Your task to perform on an android device: clear all cookies in the chrome app Image 0: 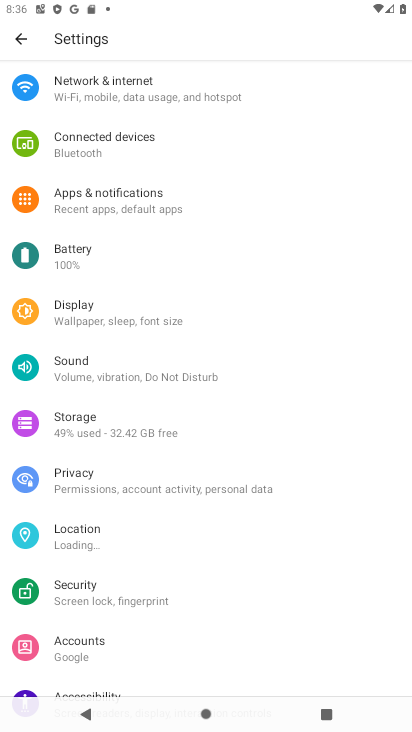
Step 0: press home button
Your task to perform on an android device: clear all cookies in the chrome app Image 1: 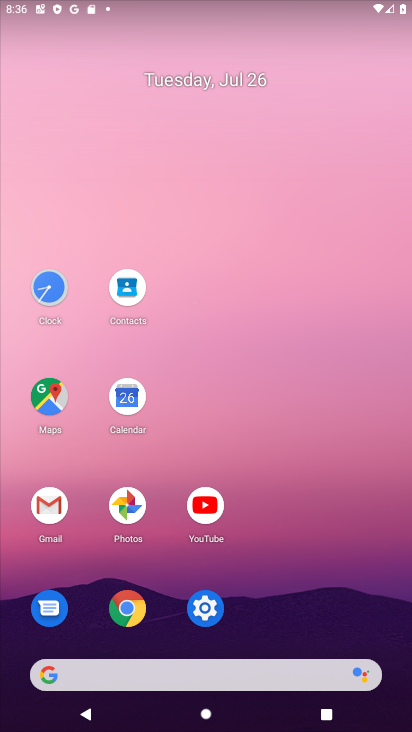
Step 1: click (130, 607)
Your task to perform on an android device: clear all cookies in the chrome app Image 2: 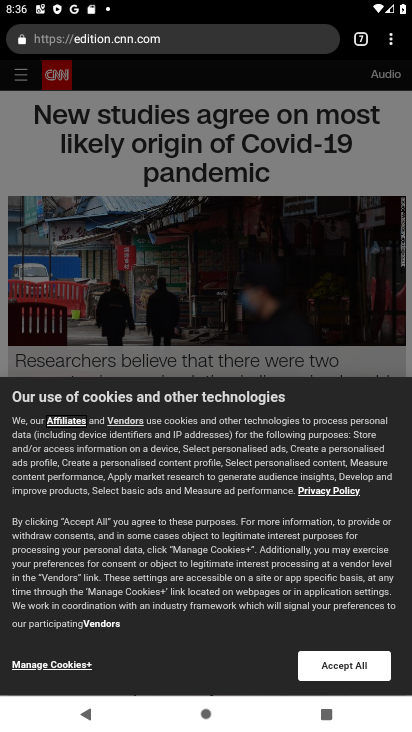
Step 2: click (387, 44)
Your task to perform on an android device: clear all cookies in the chrome app Image 3: 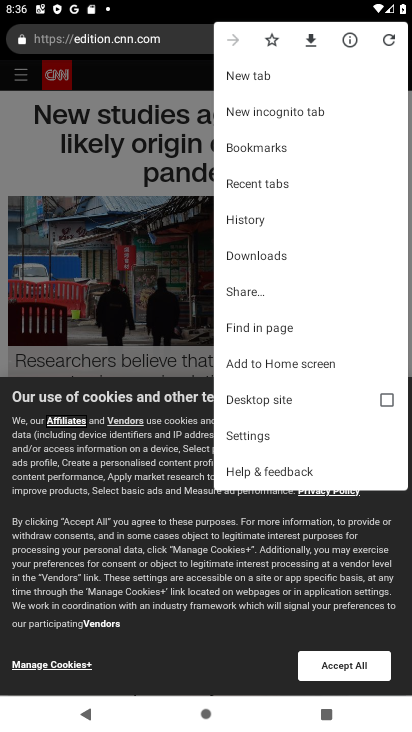
Step 3: click (242, 222)
Your task to perform on an android device: clear all cookies in the chrome app Image 4: 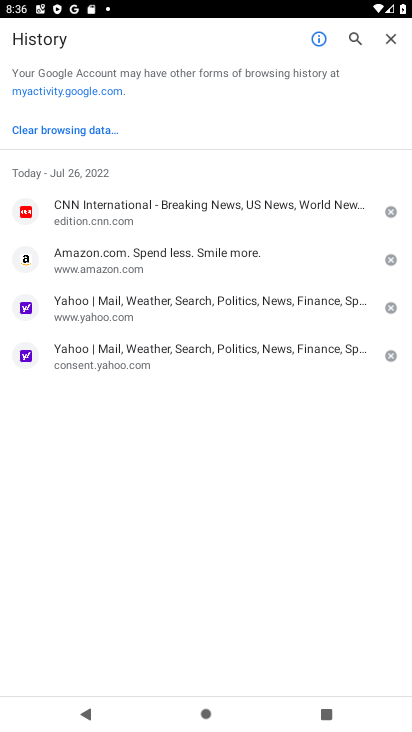
Step 4: click (72, 127)
Your task to perform on an android device: clear all cookies in the chrome app Image 5: 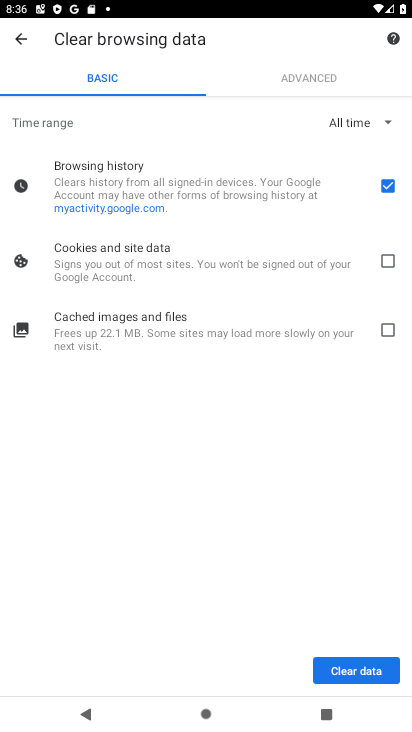
Step 5: click (383, 254)
Your task to perform on an android device: clear all cookies in the chrome app Image 6: 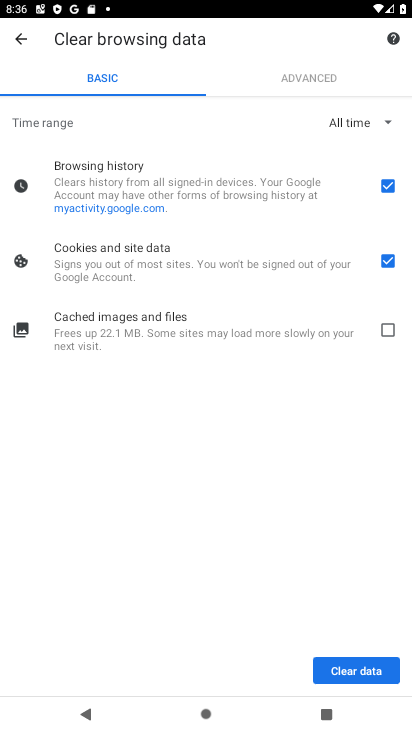
Step 6: click (387, 182)
Your task to perform on an android device: clear all cookies in the chrome app Image 7: 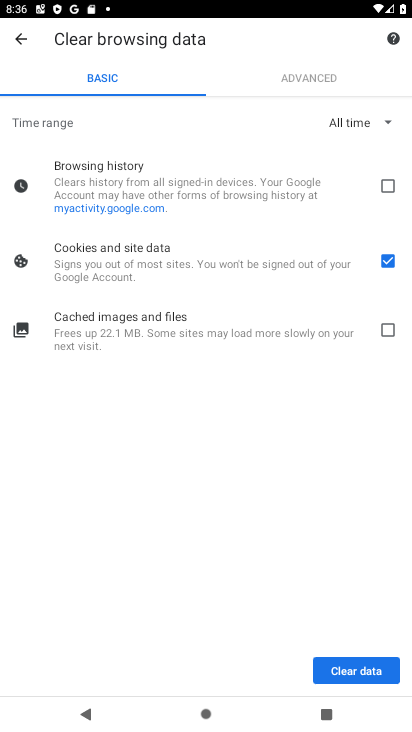
Step 7: click (355, 671)
Your task to perform on an android device: clear all cookies in the chrome app Image 8: 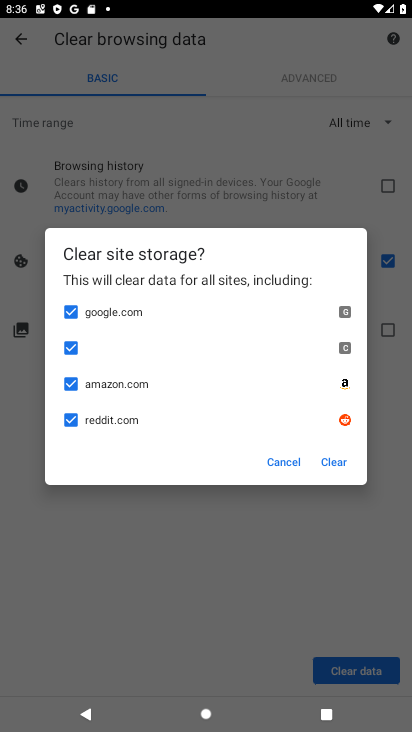
Step 8: click (339, 463)
Your task to perform on an android device: clear all cookies in the chrome app Image 9: 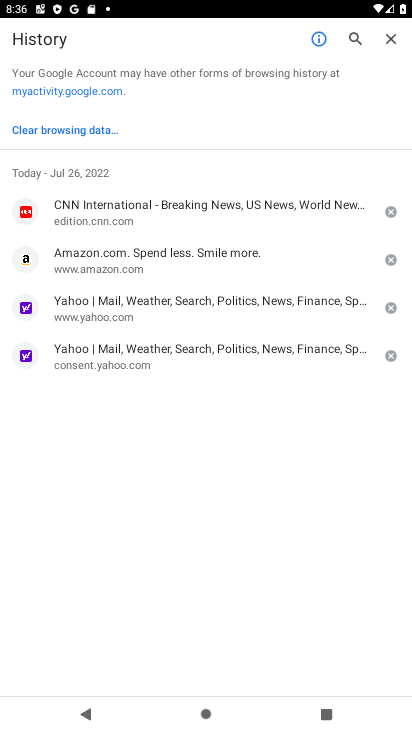
Step 9: task complete